Your task to perform on an android device: Do I have any events this weekend? Image 0: 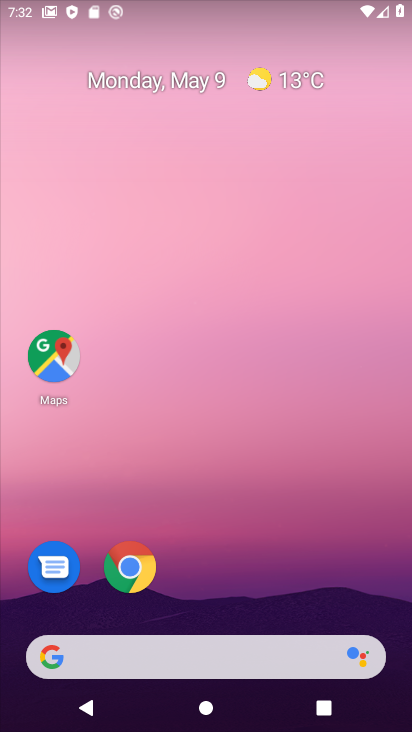
Step 0: drag from (304, 526) to (401, 41)
Your task to perform on an android device: Do I have any events this weekend? Image 1: 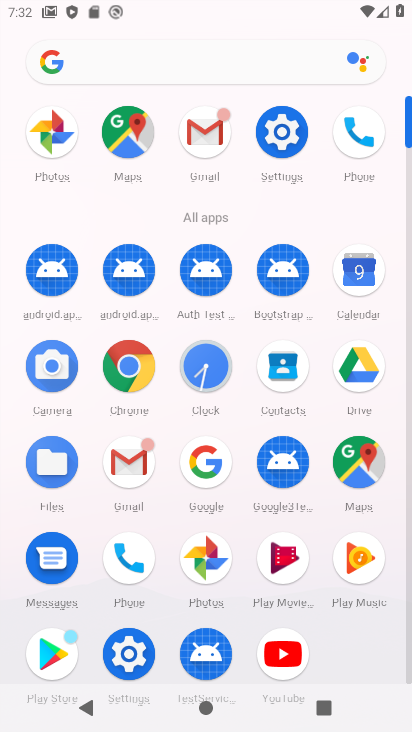
Step 1: click (358, 270)
Your task to perform on an android device: Do I have any events this weekend? Image 2: 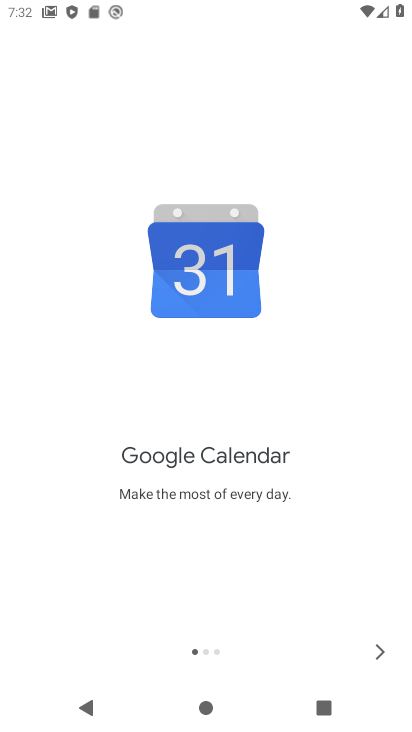
Step 2: click (377, 650)
Your task to perform on an android device: Do I have any events this weekend? Image 3: 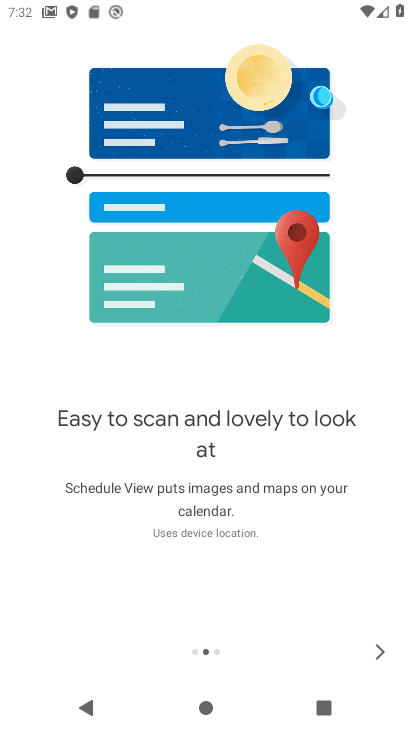
Step 3: click (377, 652)
Your task to perform on an android device: Do I have any events this weekend? Image 4: 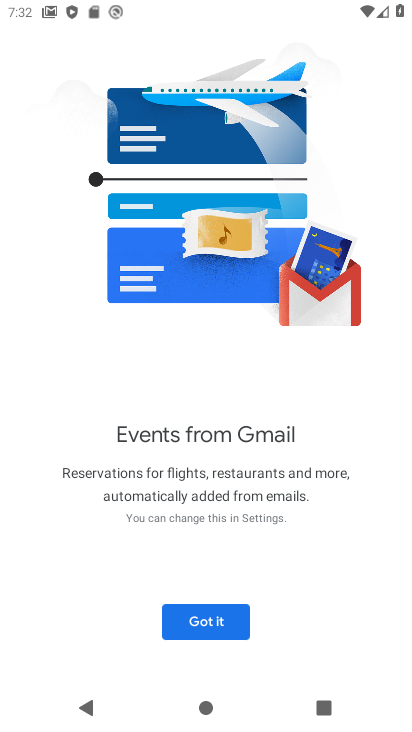
Step 4: click (224, 616)
Your task to perform on an android device: Do I have any events this weekend? Image 5: 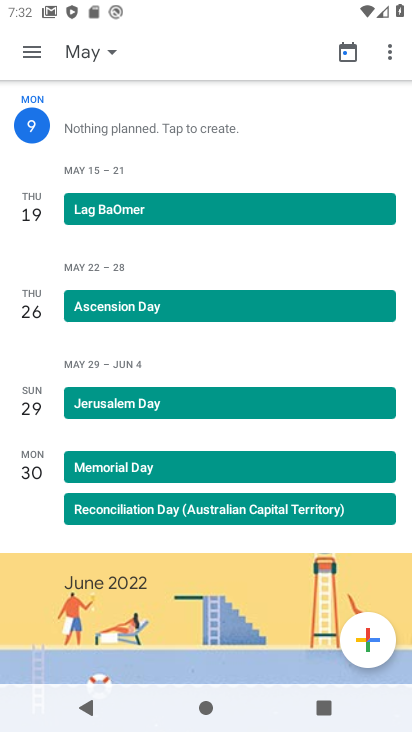
Step 5: click (34, 44)
Your task to perform on an android device: Do I have any events this weekend? Image 6: 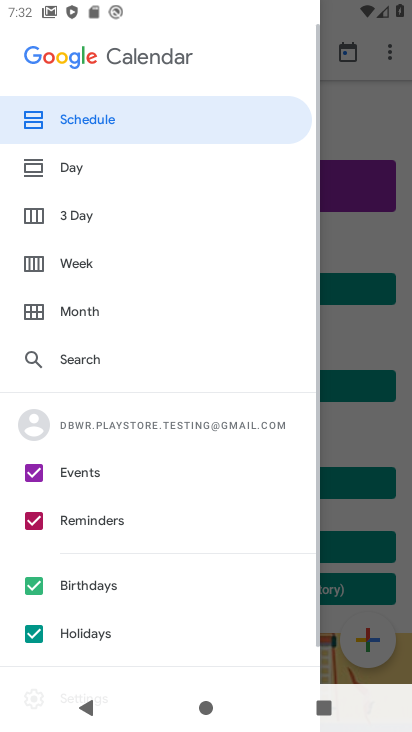
Step 6: click (36, 261)
Your task to perform on an android device: Do I have any events this weekend? Image 7: 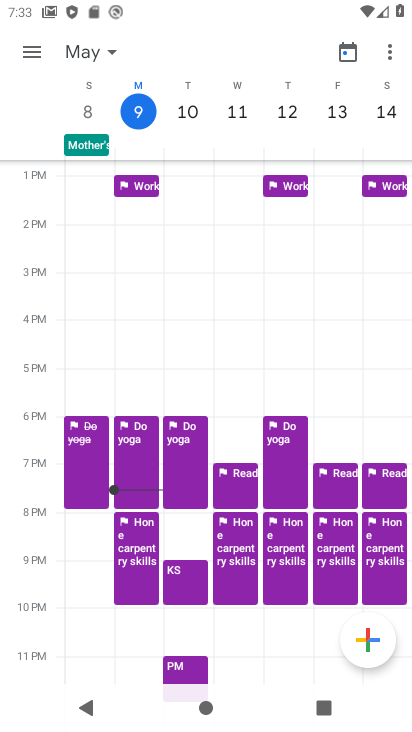
Step 7: click (382, 95)
Your task to perform on an android device: Do I have any events this weekend? Image 8: 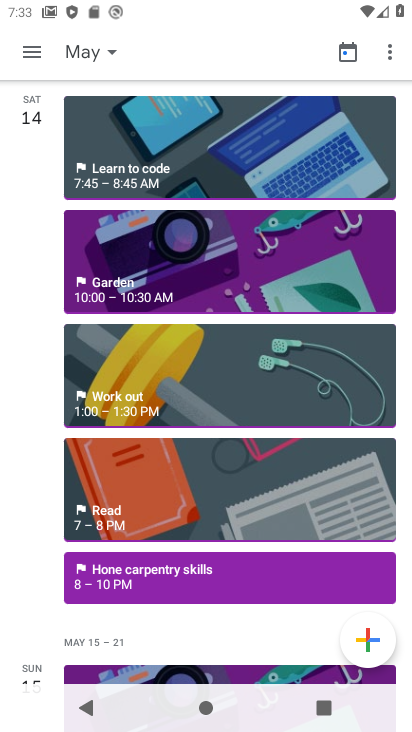
Step 8: task complete